Your task to perform on an android device: change the clock display to digital Image 0: 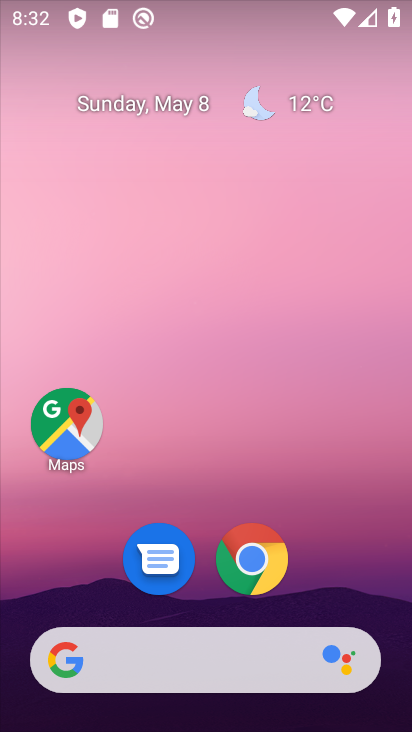
Step 0: drag from (205, 615) to (208, 45)
Your task to perform on an android device: change the clock display to digital Image 1: 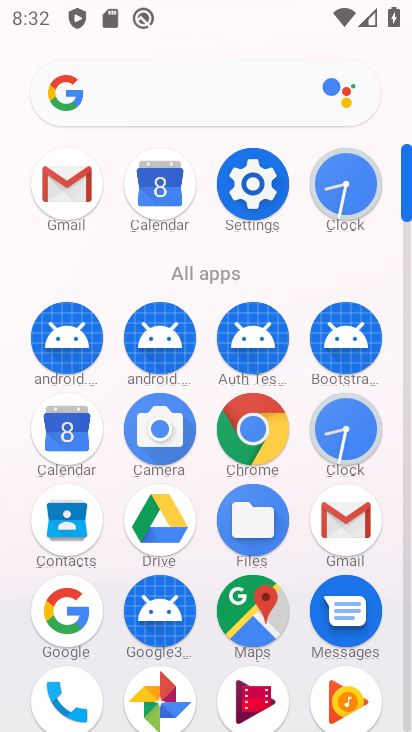
Step 1: click (337, 424)
Your task to perform on an android device: change the clock display to digital Image 2: 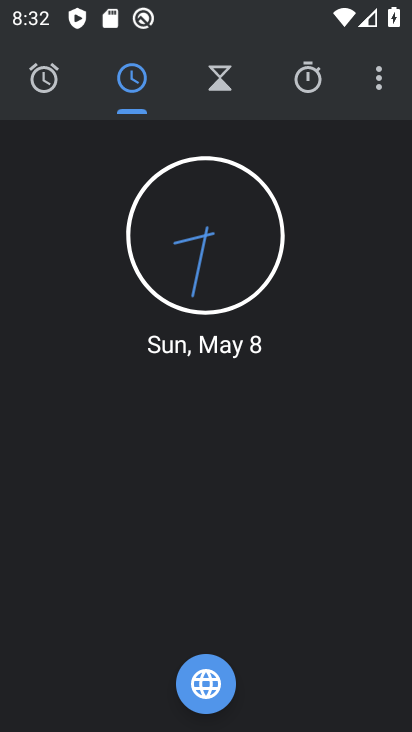
Step 2: click (380, 75)
Your task to perform on an android device: change the clock display to digital Image 3: 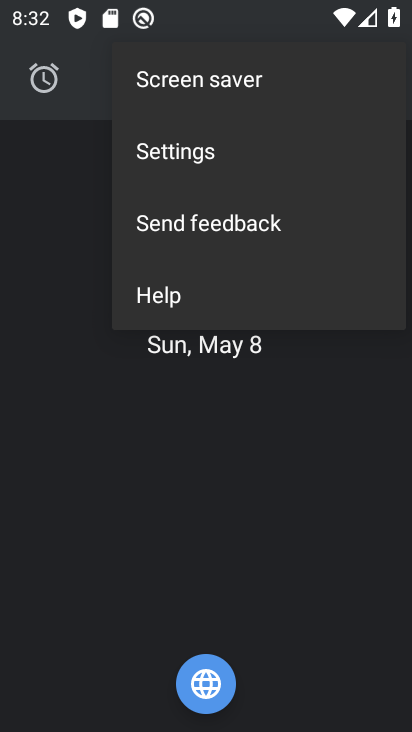
Step 3: click (154, 163)
Your task to perform on an android device: change the clock display to digital Image 4: 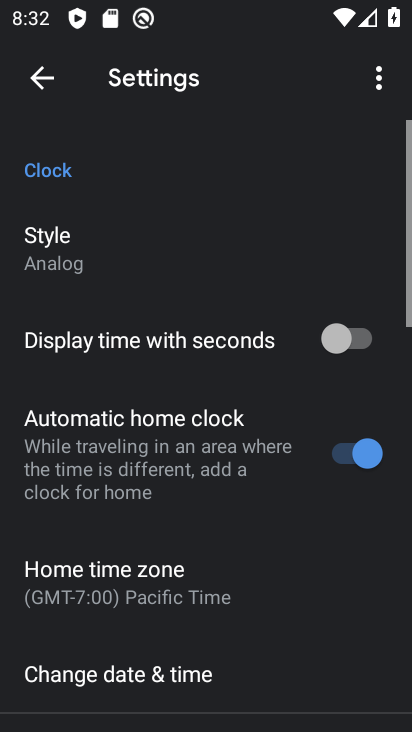
Step 4: click (114, 230)
Your task to perform on an android device: change the clock display to digital Image 5: 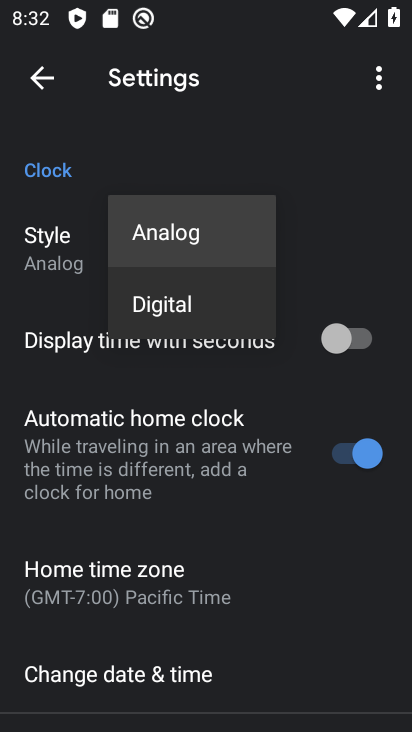
Step 5: click (179, 303)
Your task to perform on an android device: change the clock display to digital Image 6: 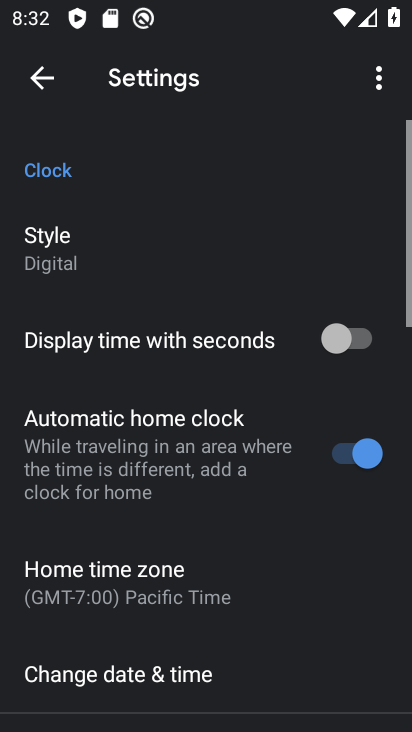
Step 6: task complete